Your task to perform on an android device: Open Maps and search for coffee Image 0: 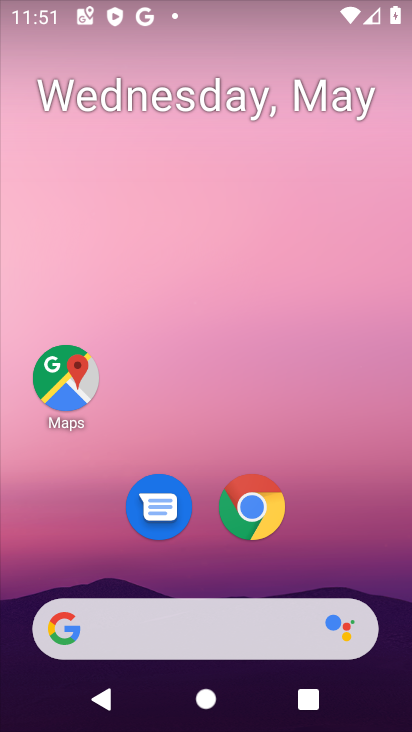
Step 0: press home button
Your task to perform on an android device: Open Maps and search for coffee Image 1: 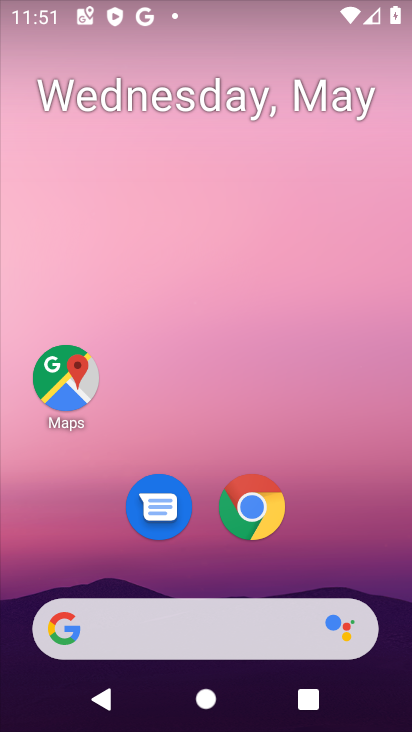
Step 1: click (61, 364)
Your task to perform on an android device: Open Maps and search for coffee Image 2: 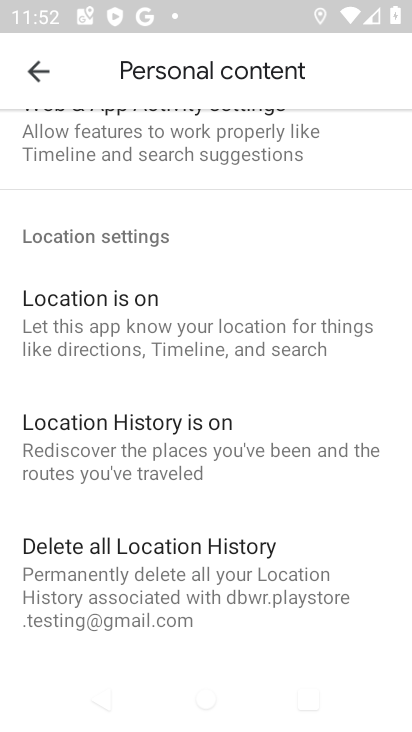
Step 2: click (41, 82)
Your task to perform on an android device: Open Maps and search for coffee Image 3: 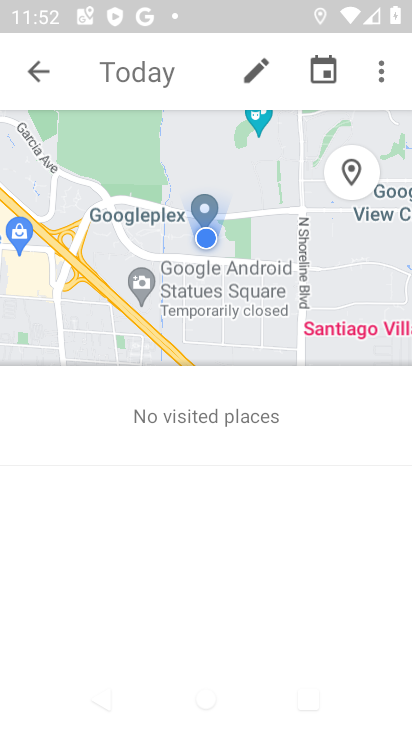
Step 3: click (41, 82)
Your task to perform on an android device: Open Maps and search for coffee Image 4: 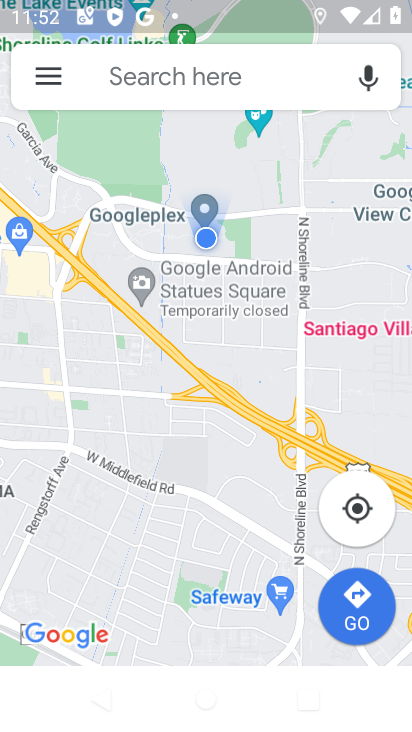
Step 4: click (41, 82)
Your task to perform on an android device: Open Maps and search for coffee Image 5: 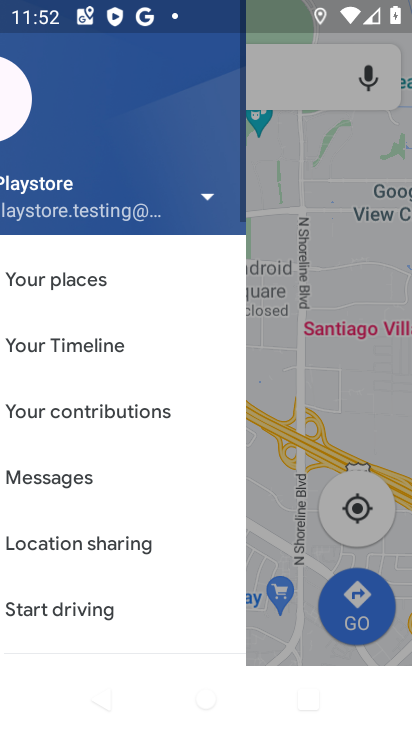
Step 5: click (201, 68)
Your task to perform on an android device: Open Maps and search for coffee Image 6: 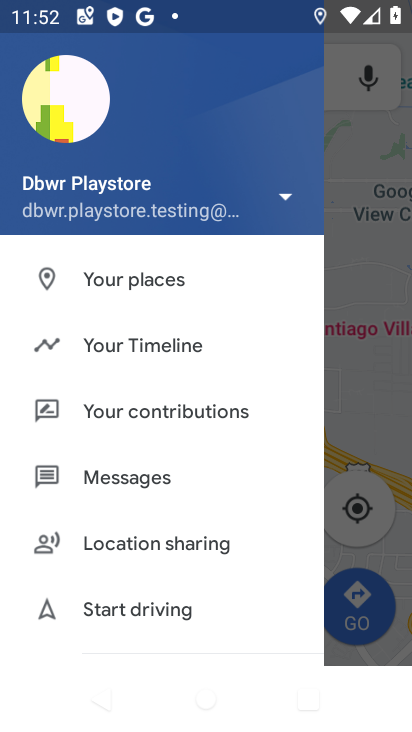
Step 6: drag from (286, 125) to (0, 221)
Your task to perform on an android device: Open Maps and search for coffee Image 7: 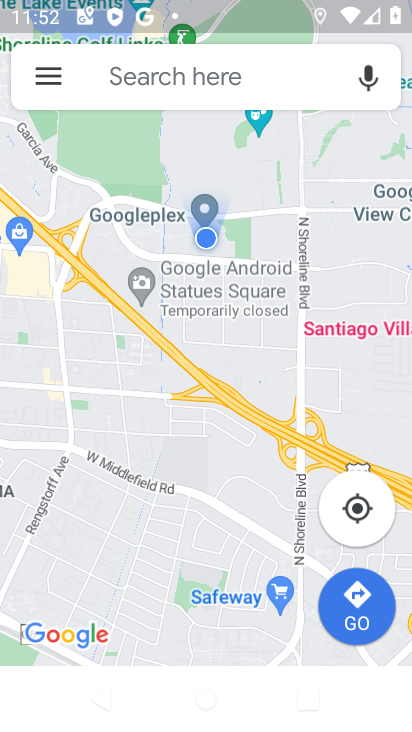
Step 7: click (213, 86)
Your task to perform on an android device: Open Maps and search for coffee Image 8: 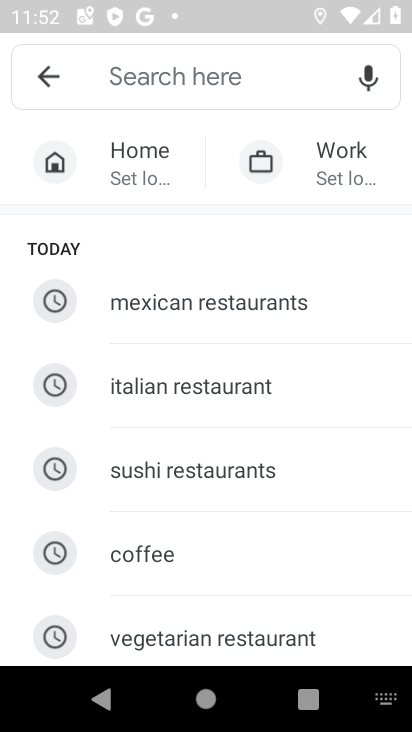
Step 8: click (277, 77)
Your task to perform on an android device: Open Maps and search for coffee Image 9: 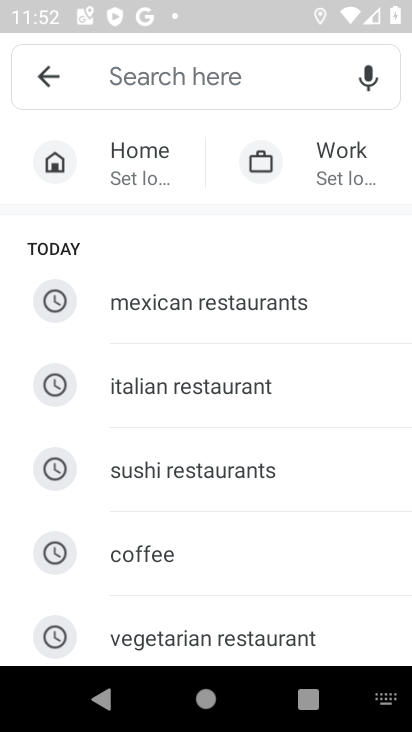
Step 9: click (277, 81)
Your task to perform on an android device: Open Maps and search for coffee Image 10: 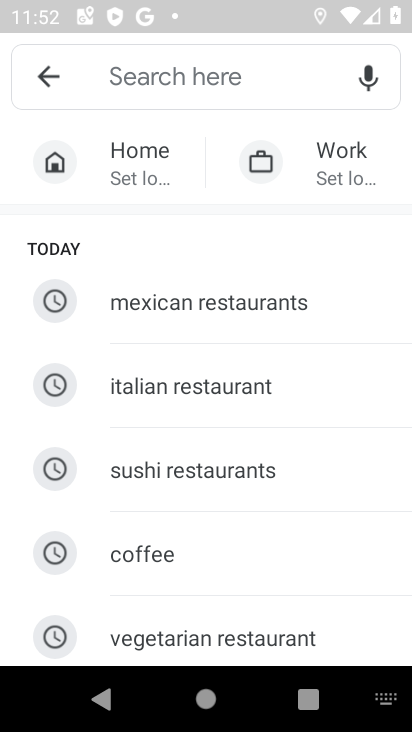
Step 10: type "coffee"
Your task to perform on an android device: Open Maps and search for coffee Image 11: 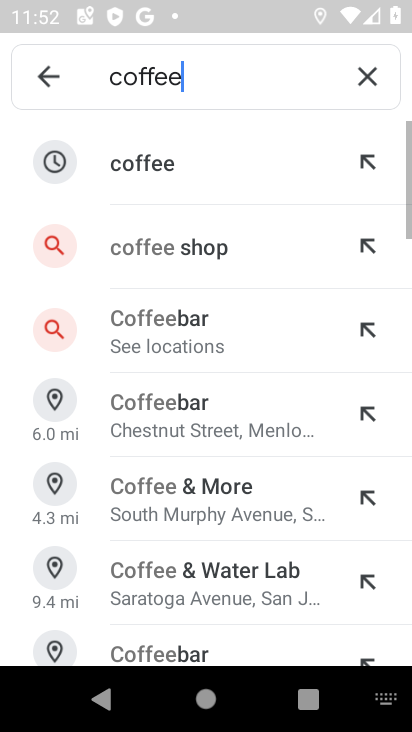
Step 11: click (195, 132)
Your task to perform on an android device: Open Maps and search for coffee Image 12: 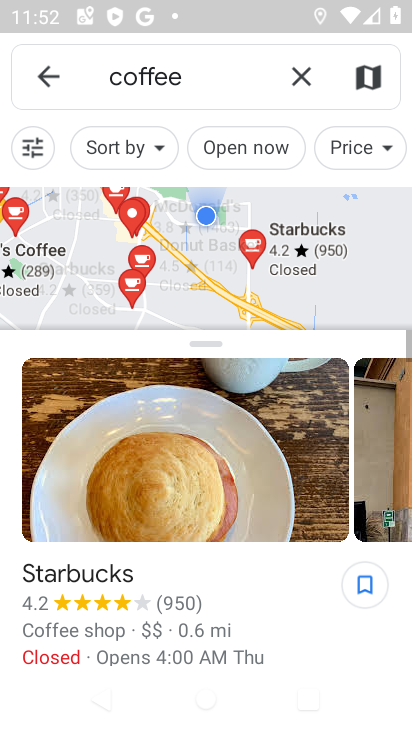
Step 12: task complete